Your task to perform on an android device: Open Chrome and go to settings Image 0: 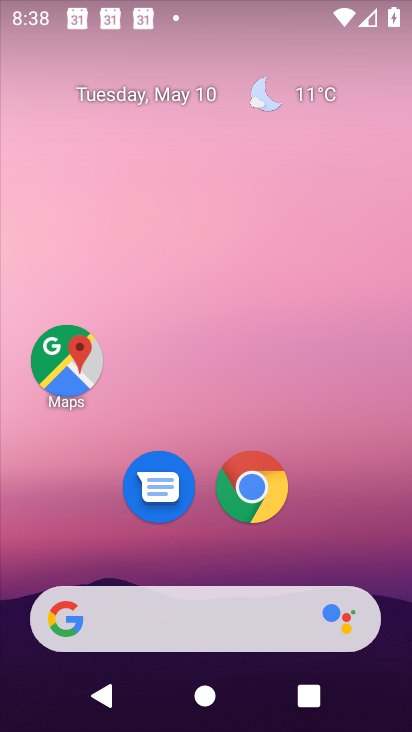
Step 0: drag from (61, 564) to (153, 175)
Your task to perform on an android device: Open Chrome and go to settings Image 1: 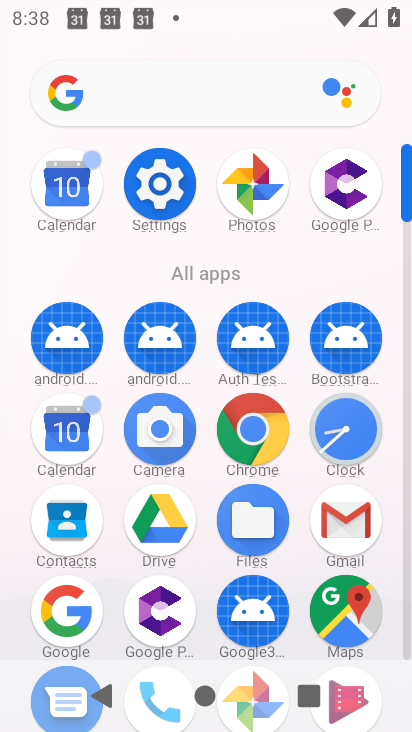
Step 1: click (240, 407)
Your task to perform on an android device: Open Chrome and go to settings Image 2: 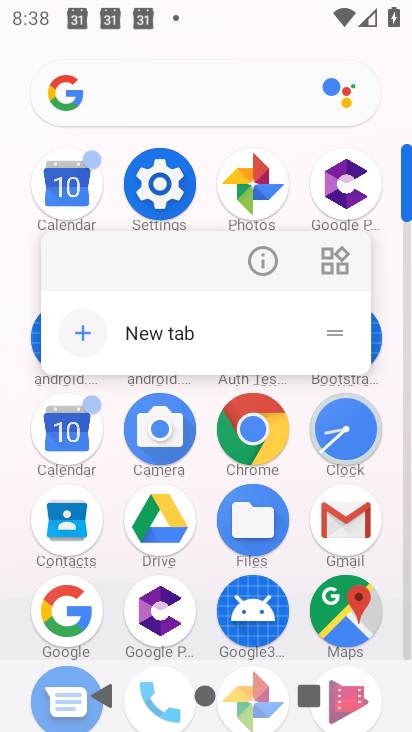
Step 2: click (266, 410)
Your task to perform on an android device: Open Chrome and go to settings Image 3: 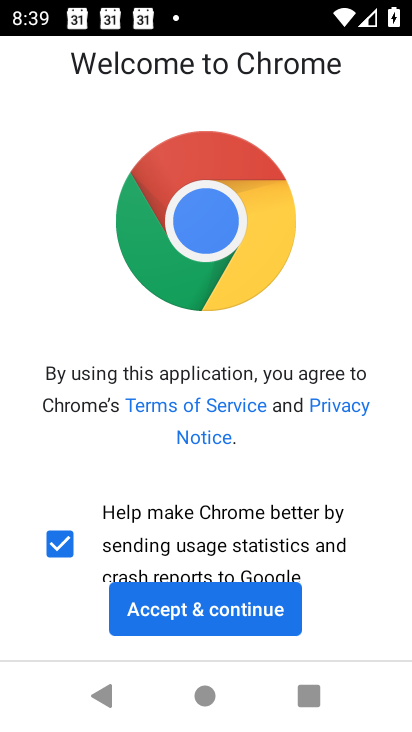
Step 3: click (246, 612)
Your task to perform on an android device: Open Chrome and go to settings Image 4: 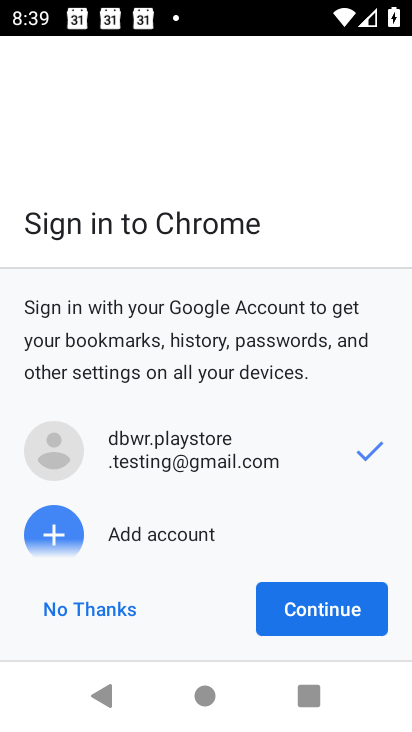
Step 4: click (244, 610)
Your task to perform on an android device: Open Chrome and go to settings Image 5: 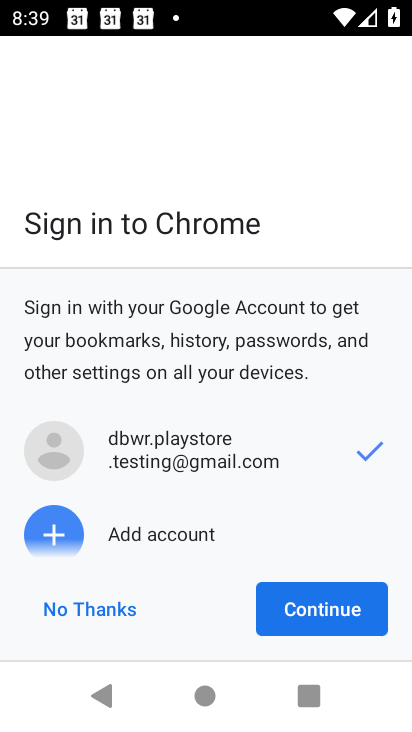
Step 5: click (344, 612)
Your task to perform on an android device: Open Chrome and go to settings Image 6: 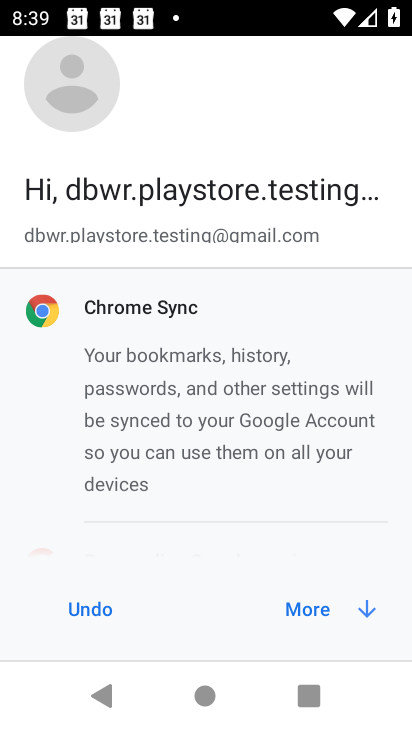
Step 6: click (337, 610)
Your task to perform on an android device: Open Chrome and go to settings Image 7: 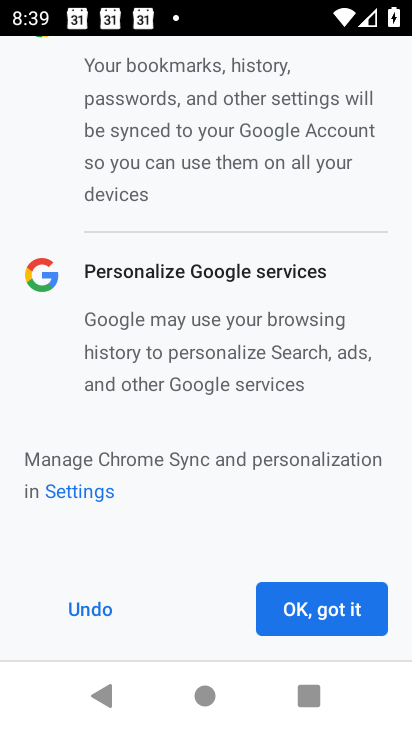
Step 7: click (355, 595)
Your task to perform on an android device: Open Chrome and go to settings Image 8: 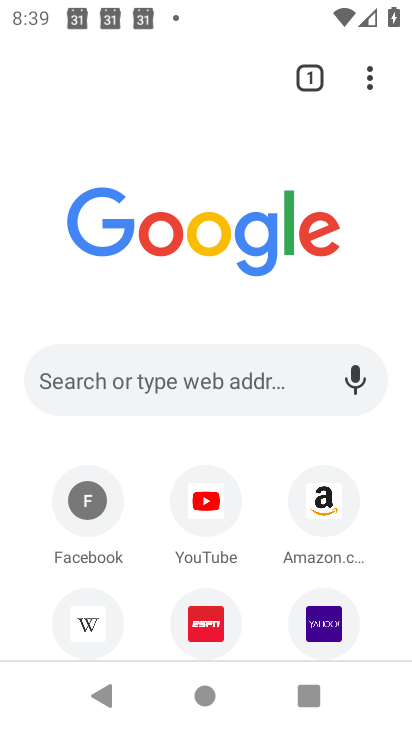
Step 8: task complete